Your task to perform on an android device: Search for the best rated mattress topper on Target. Image 0: 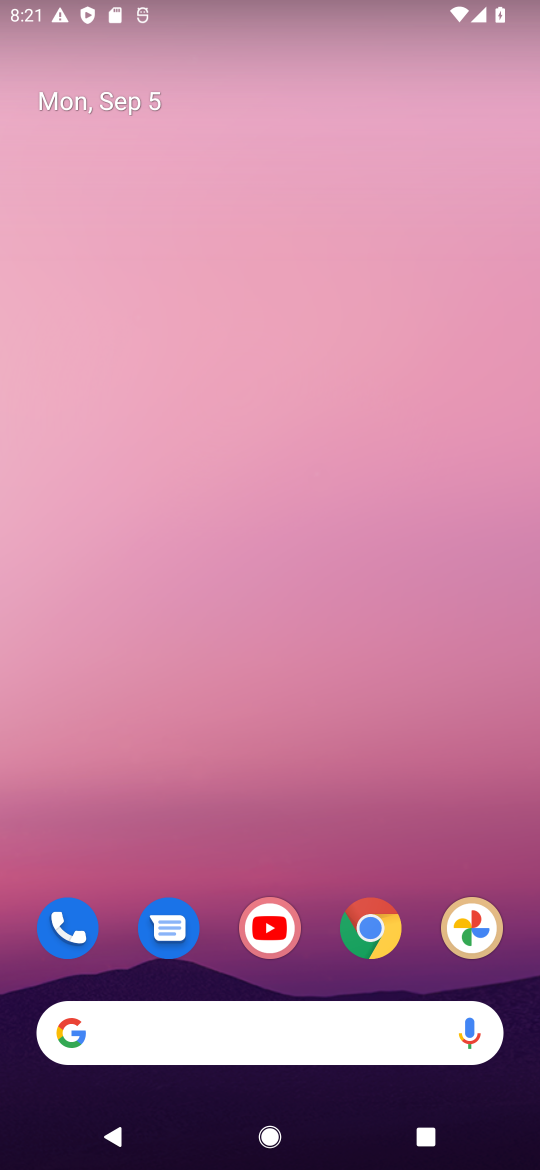
Step 0: click (377, 939)
Your task to perform on an android device: Search for the best rated mattress topper on Target. Image 1: 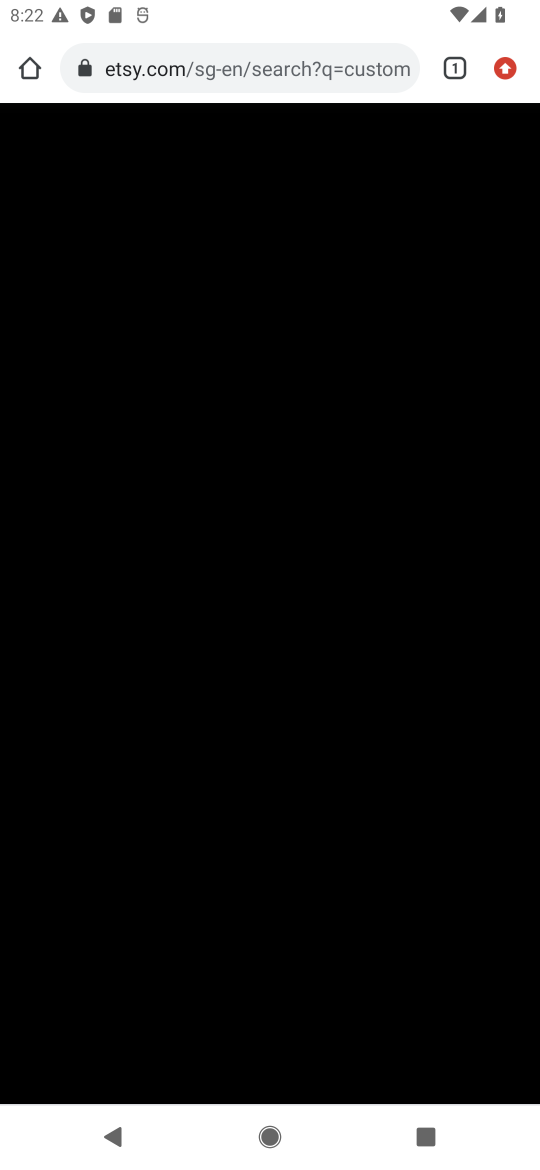
Step 1: click (242, 69)
Your task to perform on an android device: Search for the best rated mattress topper on Target. Image 2: 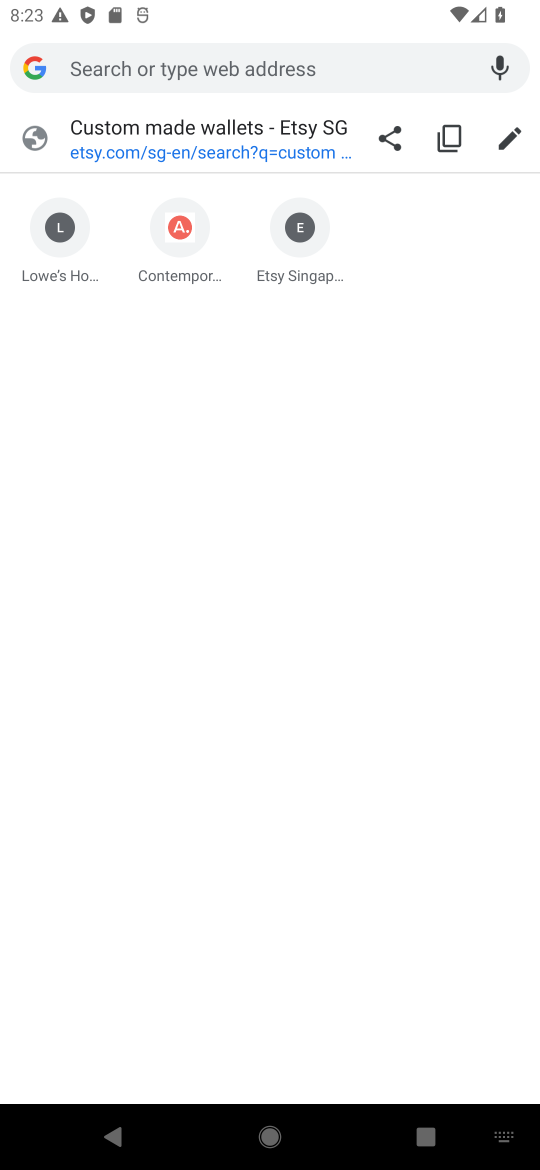
Step 2: type "target"
Your task to perform on an android device: Search for the best rated mattress topper on Target. Image 3: 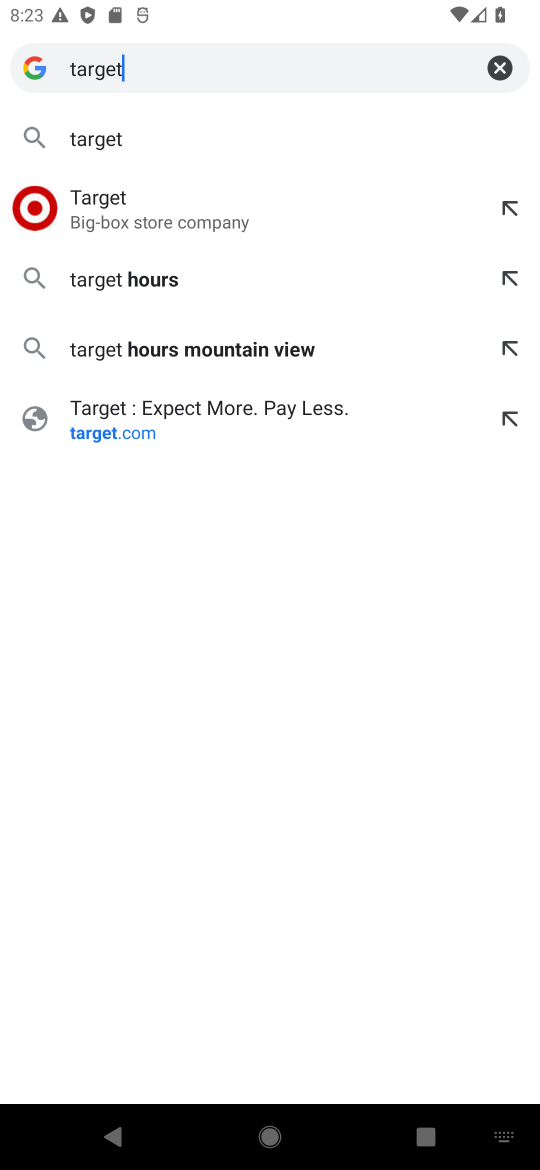
Step 3: click (89, 206)
Your task to perform on an android device: Search for the best rated mattress topper on Target. Image 4: 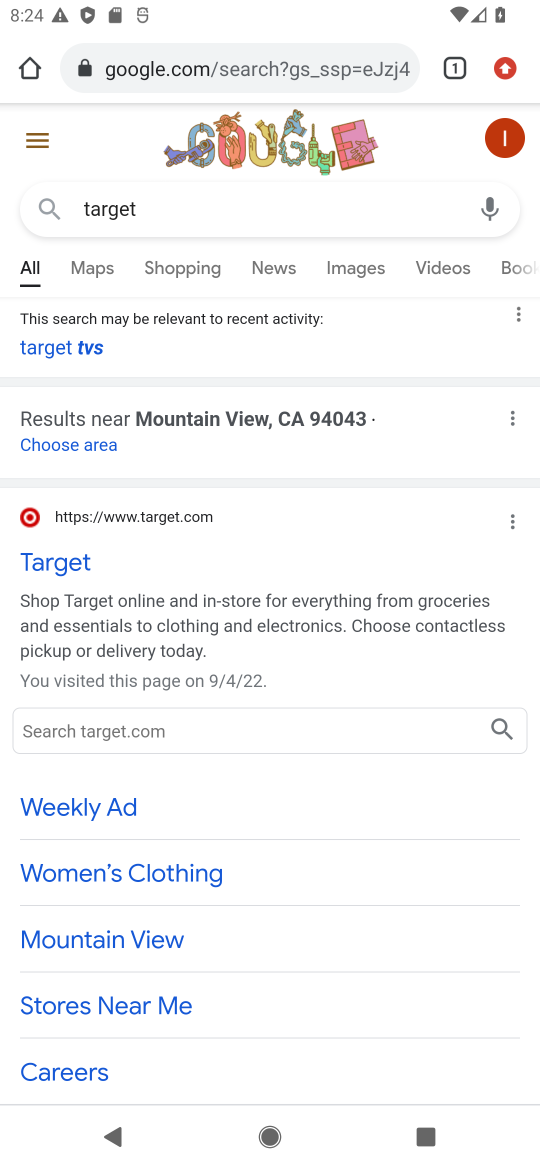
Step 4: click (58, 563)
Your task to perform on an android device: Search for the best rated mattress topper on Target. Image 5: 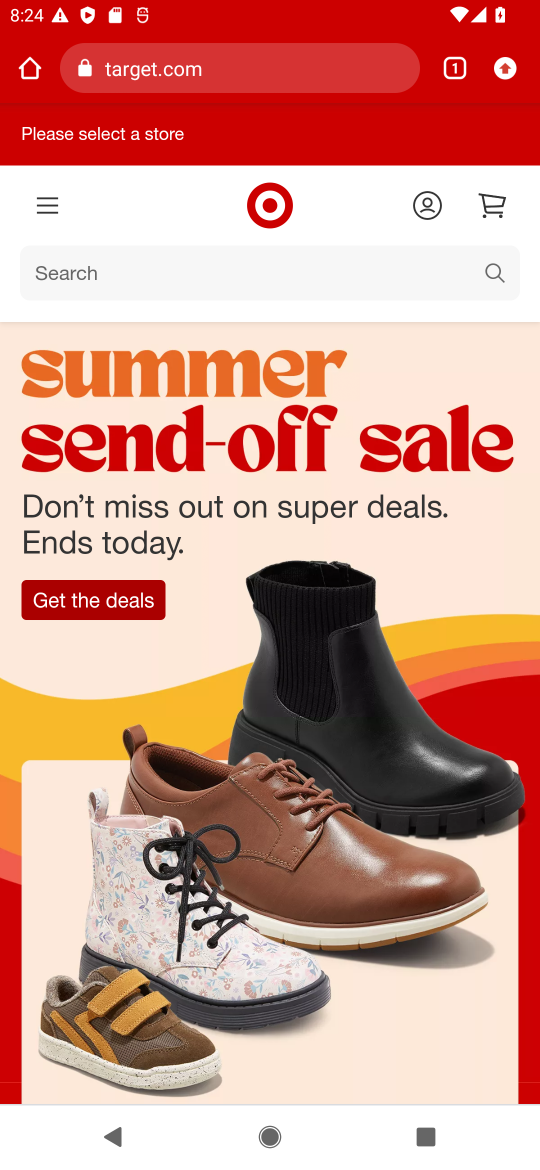
Step 5: click (487, 269)
Your task to perform on an android device: Search for the best rated mattress topper on Target. Image 6: 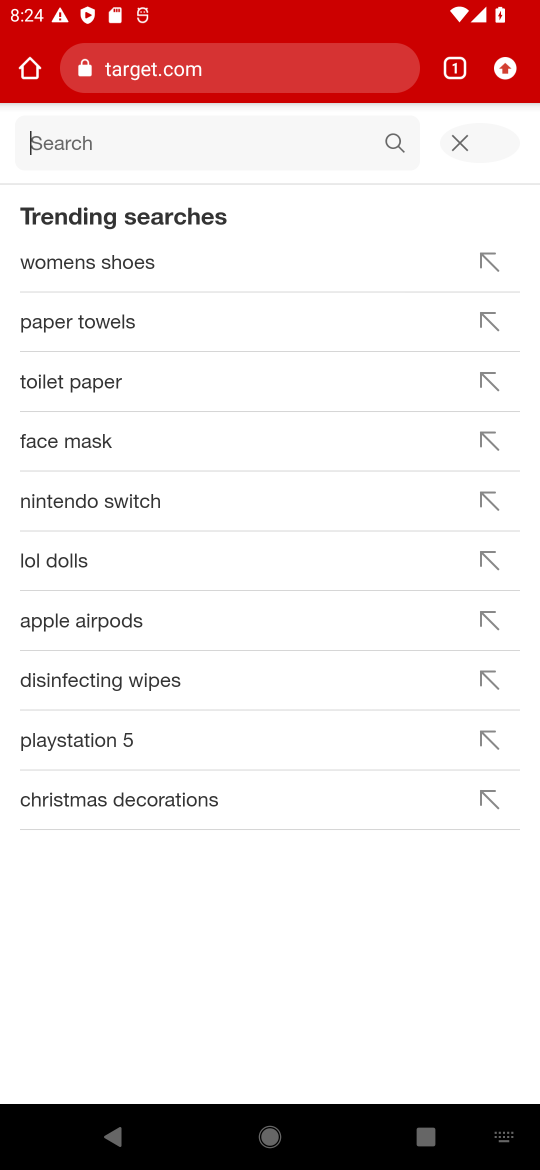
Step 6: click (144, 145)
Your task to perform on an android device: Search for the best rated mattress topper on Target. Image 7: 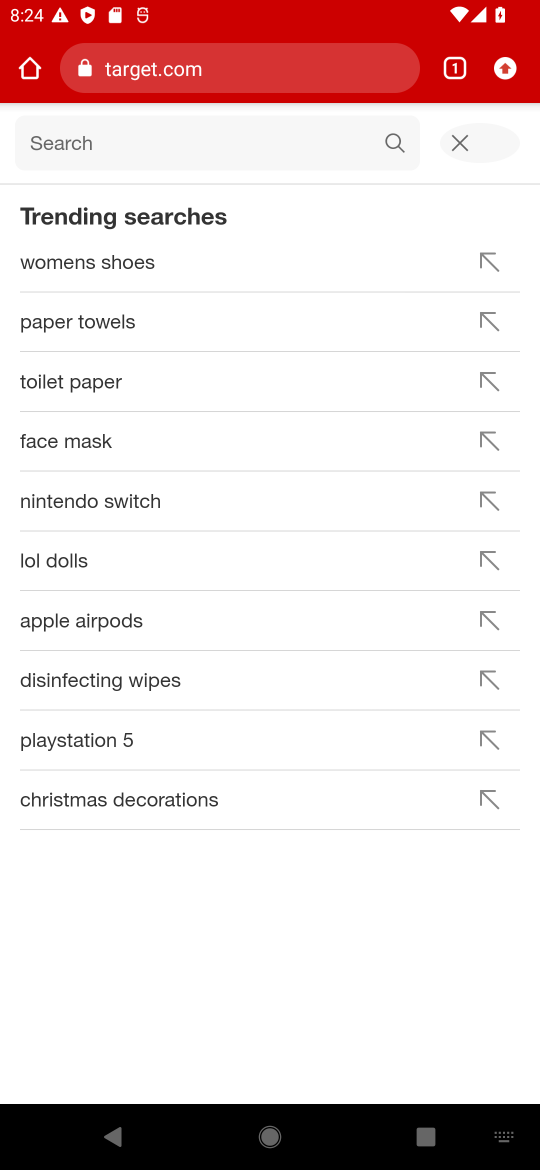
Step 7: type "best rated mattress topper"
Your task to perform on an android device: Search for the best rated mattress topper on Target. Image 8: 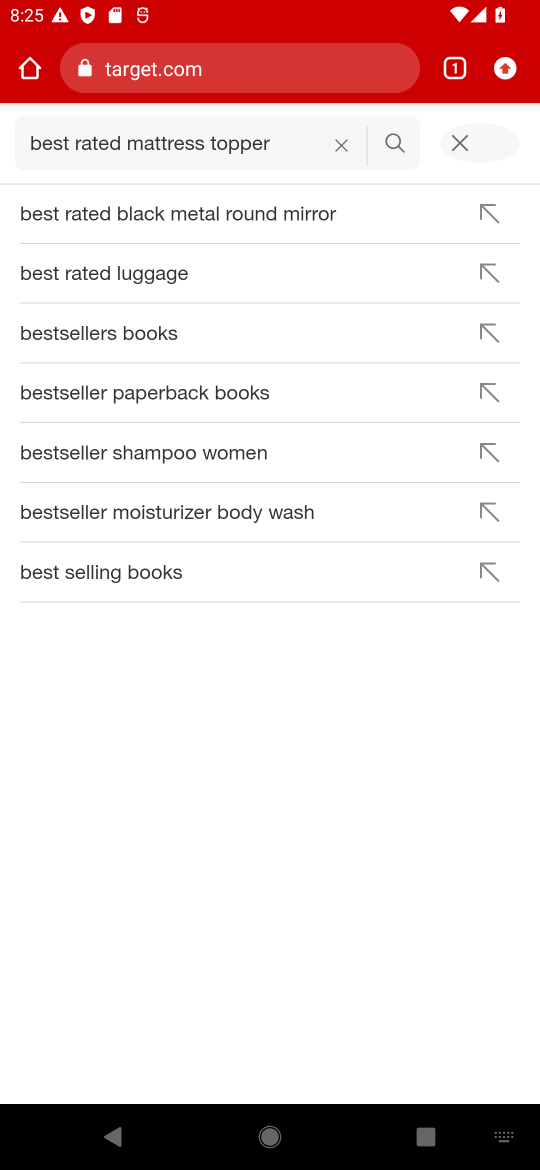
Step 8: task complete